Your task to perform on an android device: toggle javascript in the chrome app Image 0: 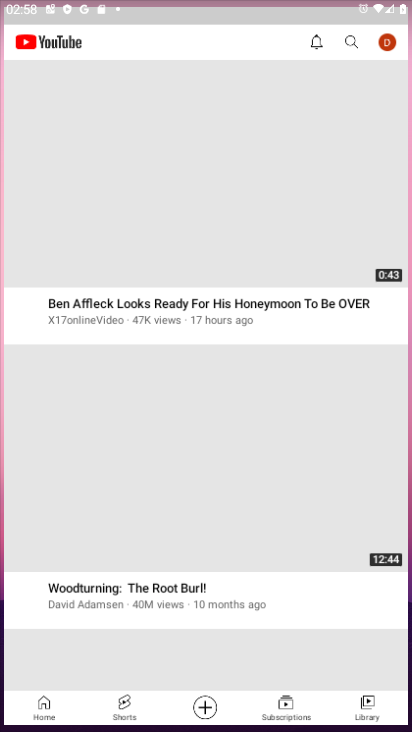
Step 0: drag from (212, 676) to (155, 100)
Your task to perform on an android device: toggle javascript in the chrome app Image 1: 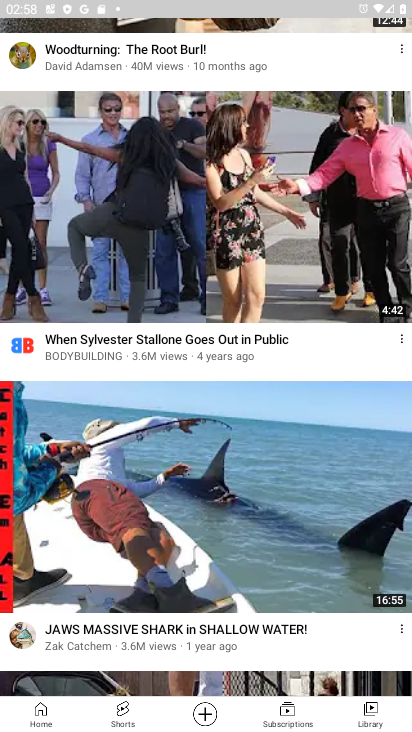
Step 1: press back button
Your task to perform on an android device: toggle javascript in the chrome app Image 2: 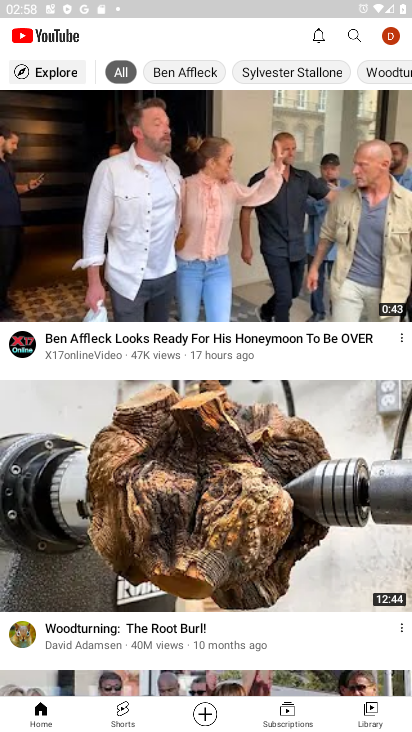
Step 2: press back button
Your task to perform on an android device: toggle javascript in the chrome app Image 3: 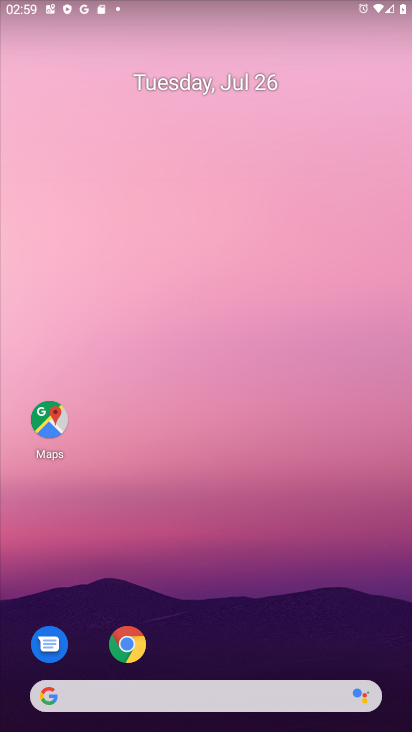
Step 3: click (146, 640)
Your task to perform on an android device: toggle javascript in the chrome app Image 4: 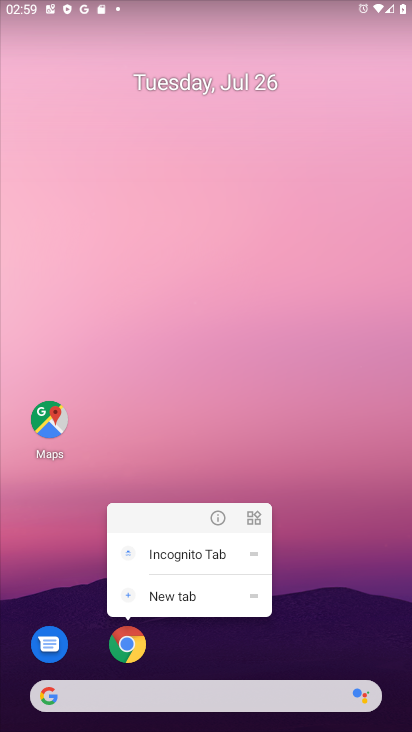
Step 4: click (122, 656)
Your task to perform on an android device: toggle javascript in the chrome app Image 5: 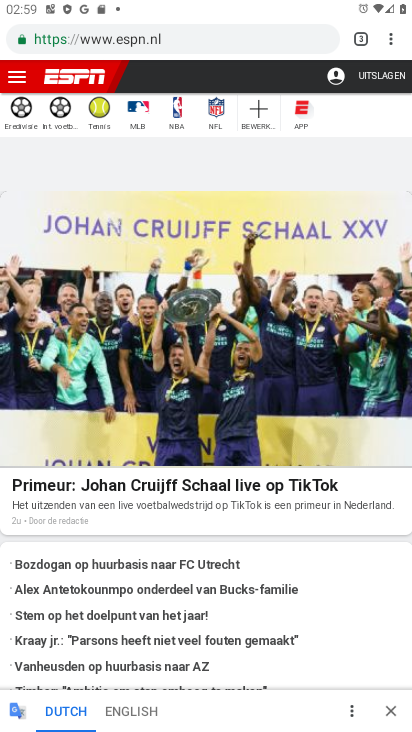
Step 5: drag from (386, 33) to (272, 471)
Your task to perform on an android device: toggle javascript in the chrome app Image 6: 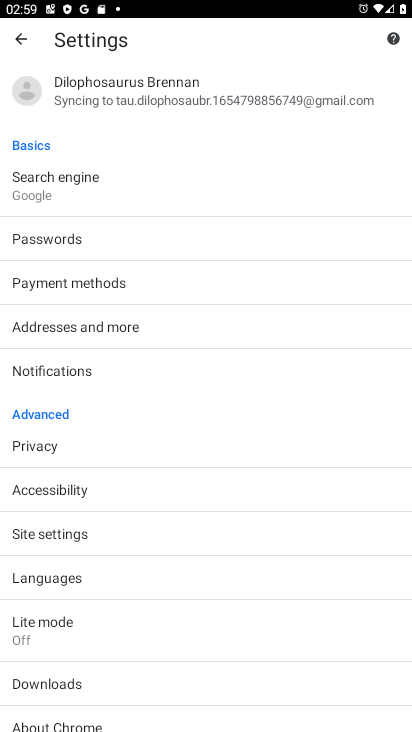
Step 6: click (47, 535)
Your task to perform on an android device: toggle javascript in the chrome app Image 7: 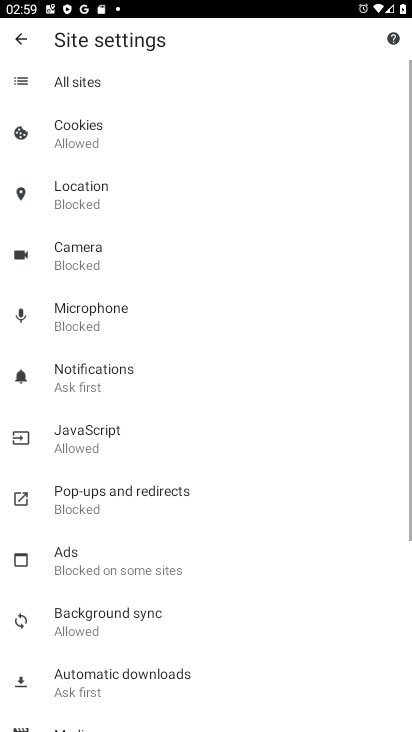
Step 7: click (71, 429)
Your task to perform on an android device: toggle javascript in the chrome app Image 8: 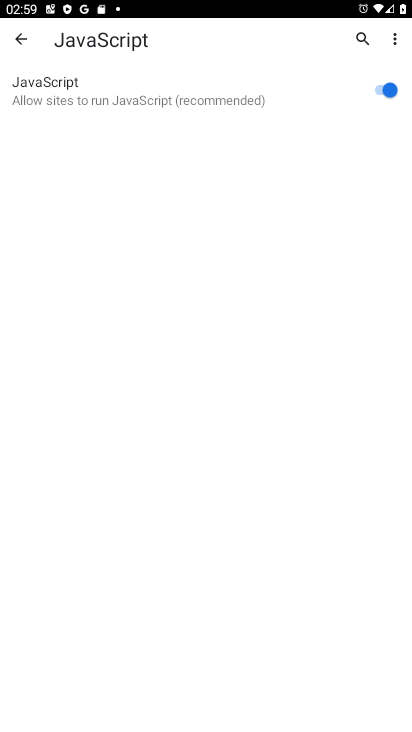
Step 8: click (380, 81)
Your task to perform on an android device: toggle javascript in the chrome app Image 9: 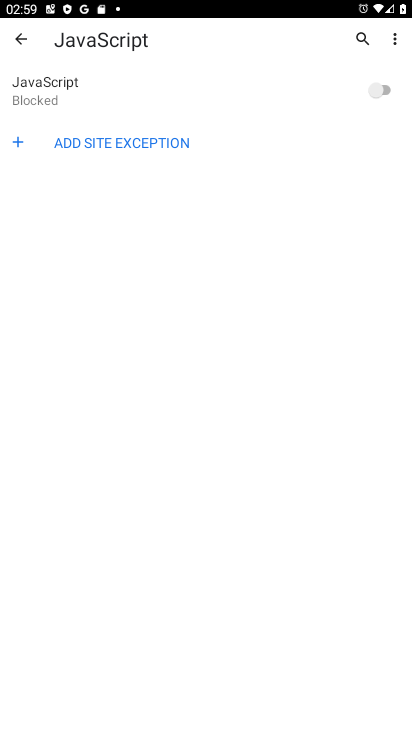
Step 9: task complete